Your task to perform on an android device: Go to Google Image 0: 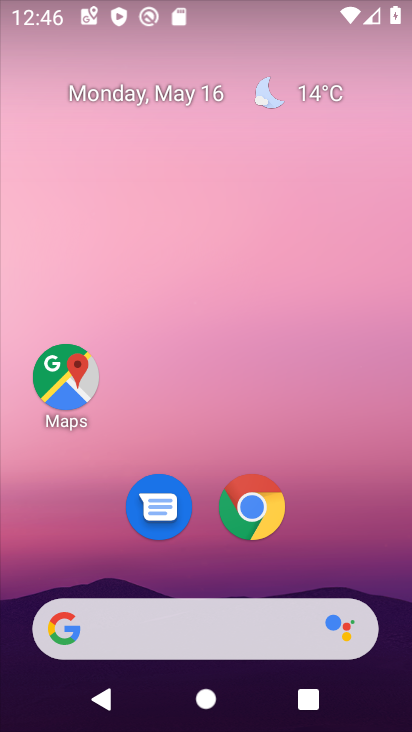
Step 0: drag from (244, 561) to (282, 179)
Your task to perform on an android device: Go to Google Image 1: 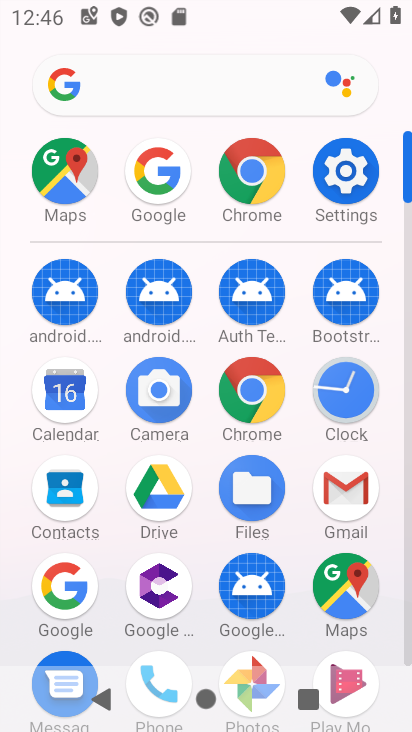
Step 1: click (65, 598)
Your task to perform on an android device: Go to Google Image 2: 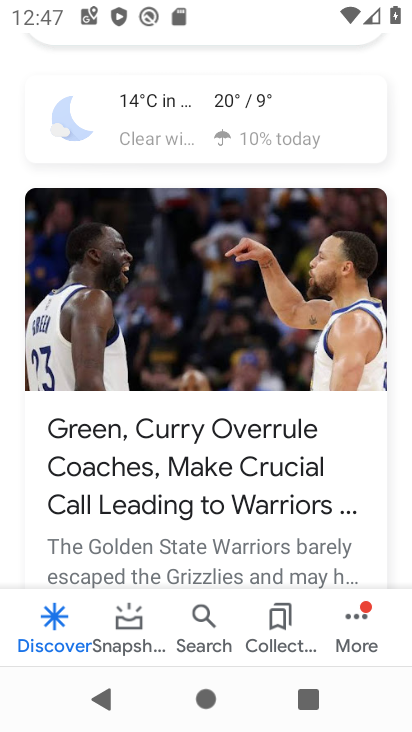
Step 2: task complete